Your task to perform on an android device: open the mobile data screen to see how much data has been used Image 0: 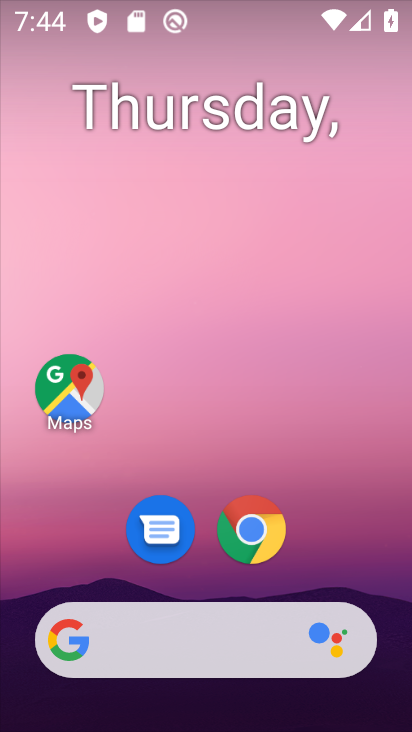
Step 0: drag from (196, 558) to (223, 77)
Your task to perform on an android device: open the mobile data screen to see how much data has been used Image 1: 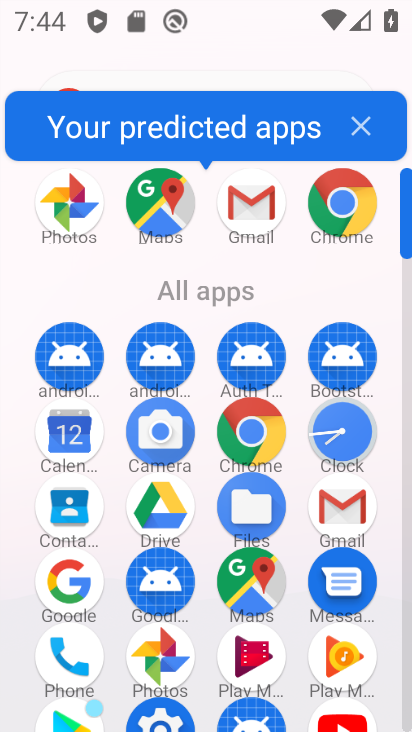
Step 1: drag from (210, 529) to (250, 246)
Your task to perform on an android device: open the mobile data screen to see how much data has been used Image 2: 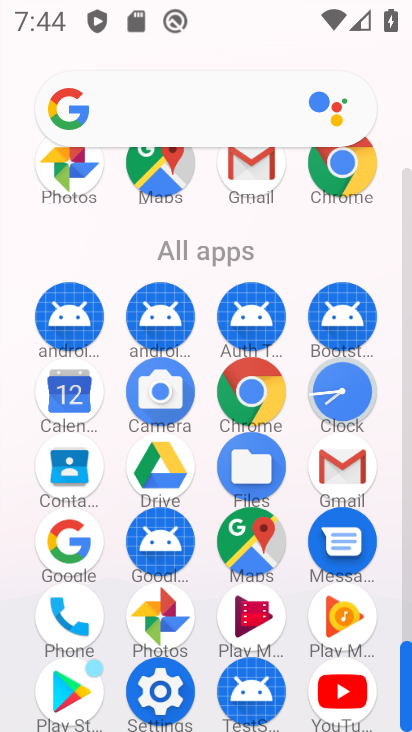
Step 2: click (165, 692)
Your task to perform on an android device: open the mobile data screen to see how much data has been used Image 3: 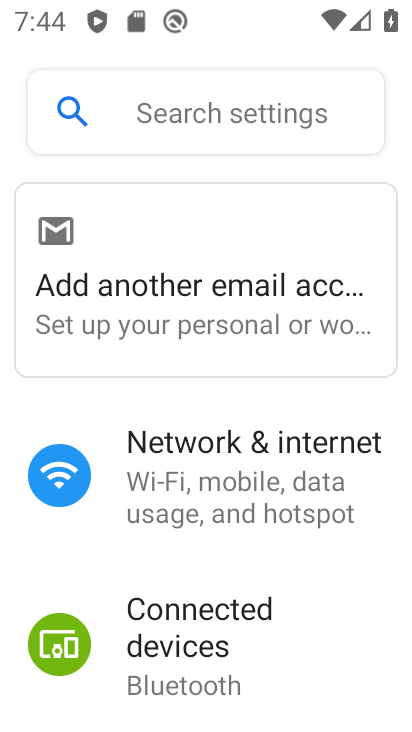
Step 3: click (248, 520)
Your task to perform on an android device: open the mobile data screen to see how much data has been used Image 4: 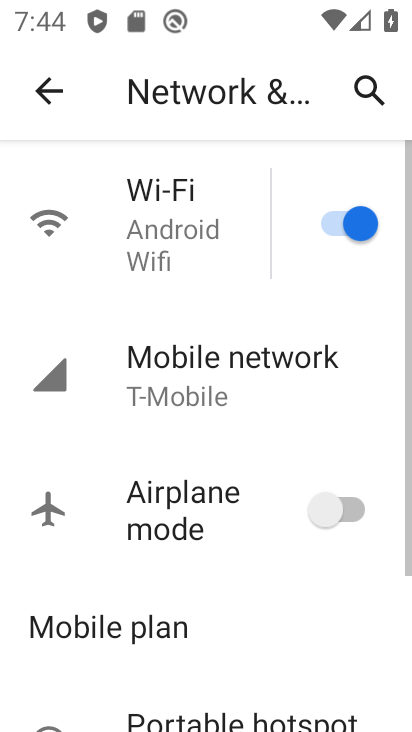
Step 4: click (238, 392)
Your task to perform on an android device: open the mobile data screen to see how much data has been used Image 5: 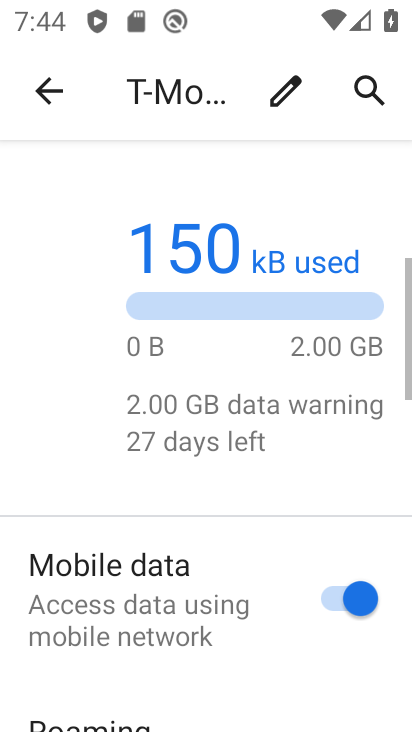
Step 5: drag from (232, 580) to (291, 233)
Your task to perform on an android device: open the mobile data screen to see how much data has been used Image 6: 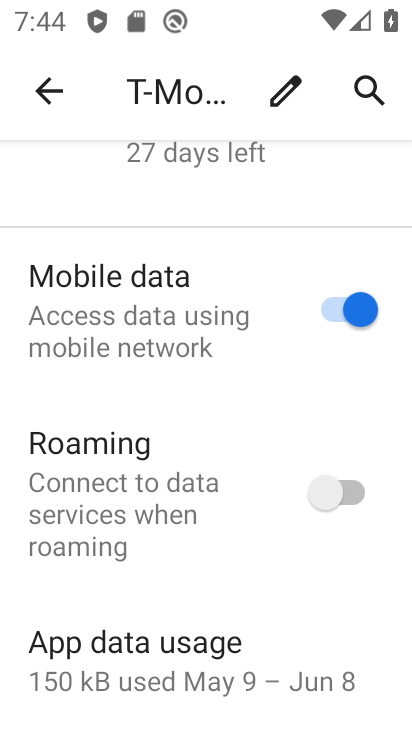
Step 6: click (143, 684)
Your task to perform on an android device: open the mobile data screen to see how much data has been used Image 7: 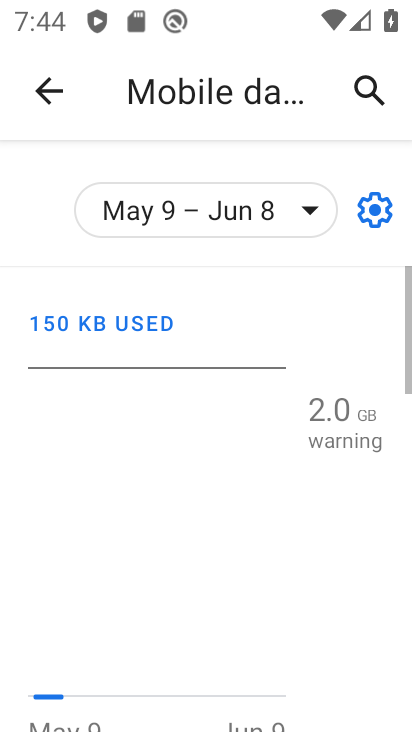
Step 7: task complete